Your task to perform on an android device: move an email to a new category in the gmail app Image 0: 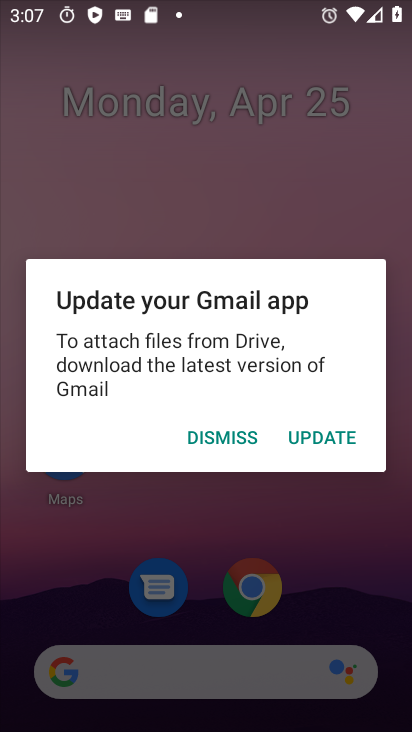
Step 0: press home button
Your task to perform on an android device: move an email to a new category in the gmail app Image 1: 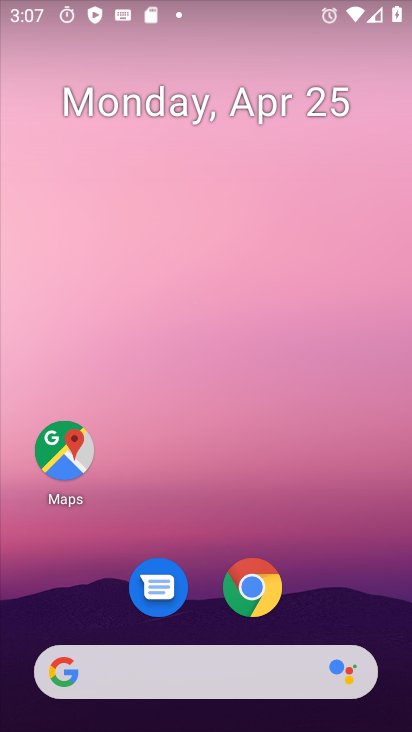
Step 1: drag from (322, 298) to (306, 100)
Your task to perform on an android device: move an email to a new category in the gmail app Image 2: 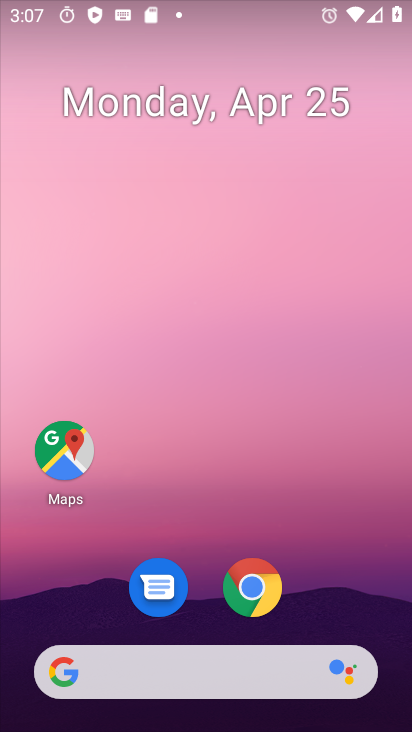
Step 2: drag from (320, 499) to (290, 51)
Your task to perform on an android device: move an email to a new category in the gmail app Image 3: 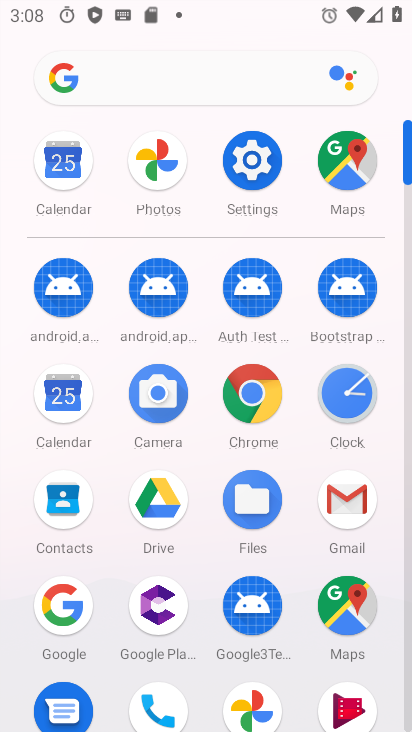
Step 3: click (354, 511)
Your task to perform on an android device: move an email to a new category in the gmail app Image 4: 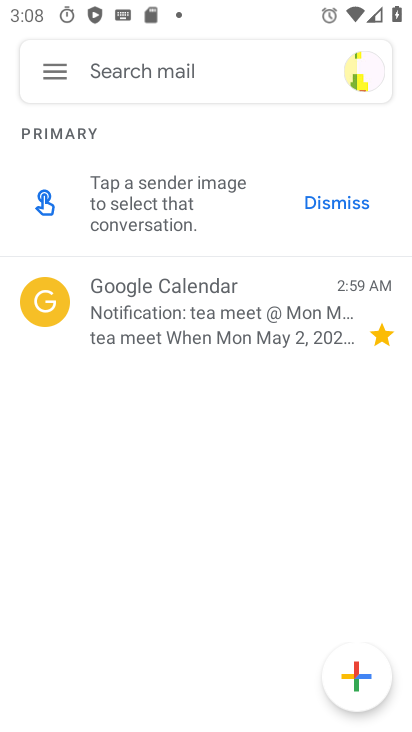
Step 4: click (276, 310)
Your task to perform on an android device: move an email to a new category in the gmail app Image 5: 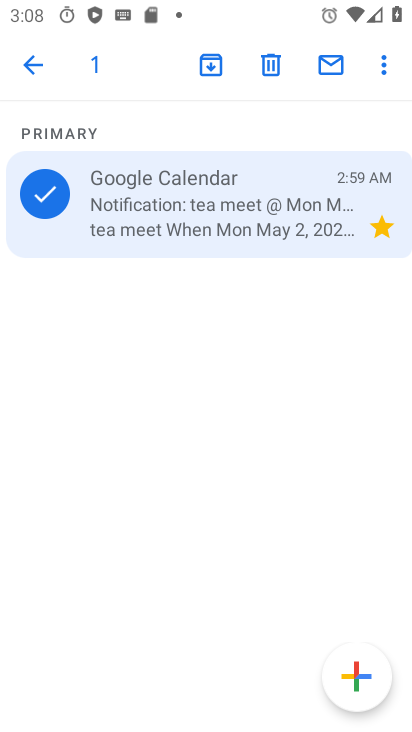
Step 5: click (385, 60)
Your task to perform on an android device: move an email to a new category in the gmail app Image 6: 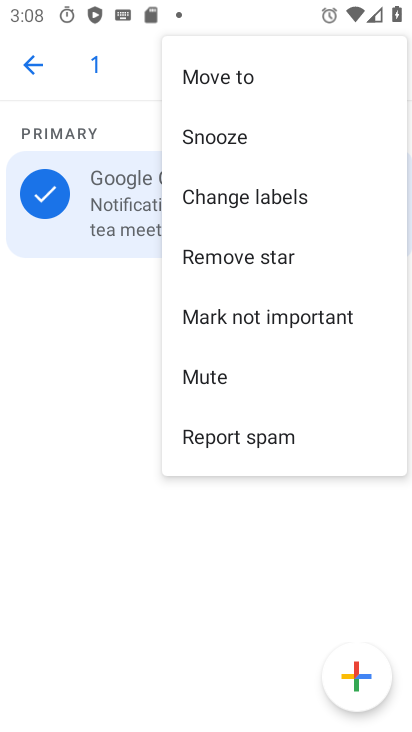
Step 6: click (266, 76)
Your task to perform on an android device: move an email to a new category in the gmail app Image 7: 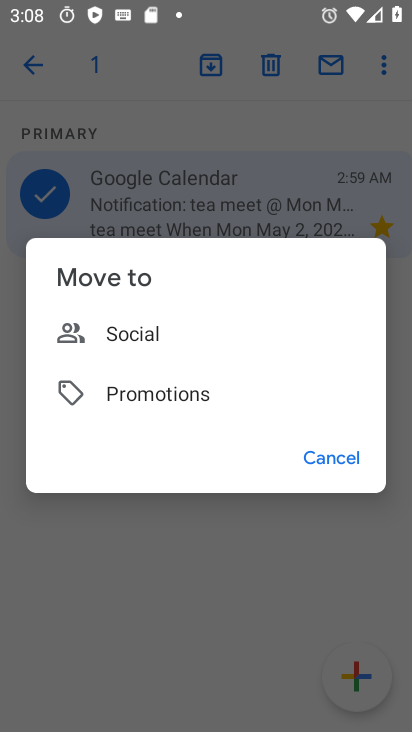
Step 7: click (151, 343)
Your task to perform on an android device: move an email to a new category in the gmail app Image 8: 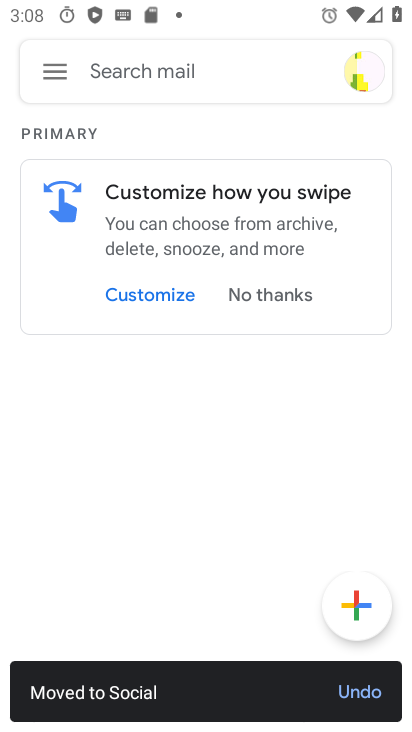
Step 8: task complete